Your task to perform on an android device: Go to network settings Image 0: 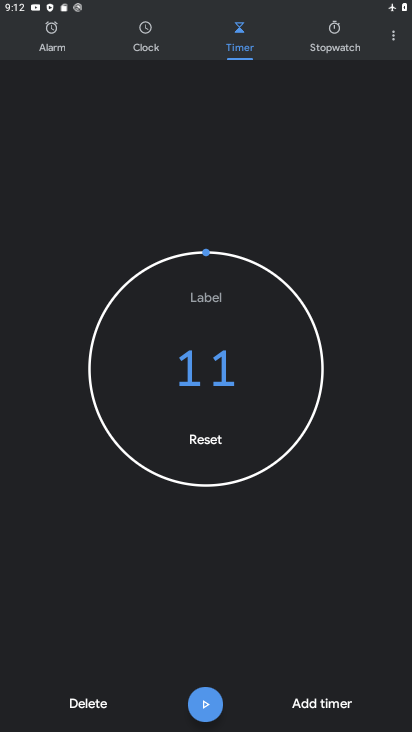
Step 0: press home button
Your task to perform on an android device: Go to network settings Image 1: 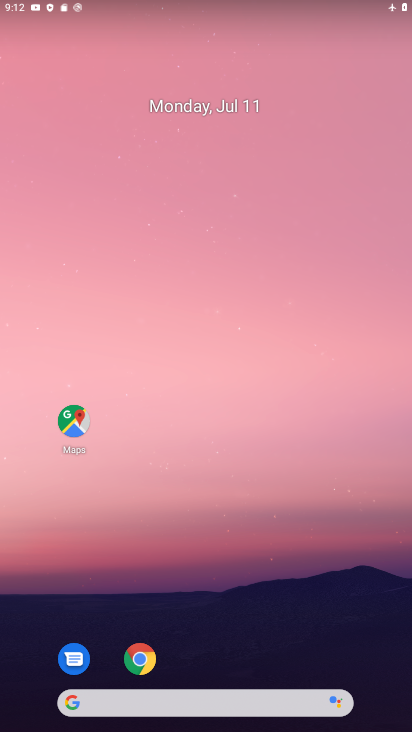
Step 1: drag from (204, 648) to (212, 189)
Your task to perform on an android device: Go to network settings Image 2: 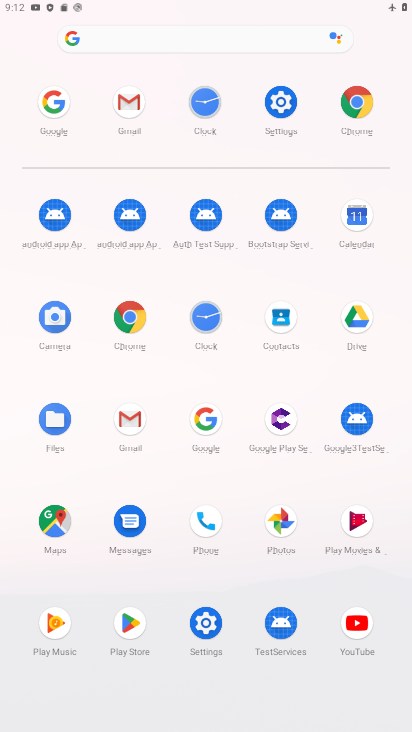
Step 2: click (270, 112)
Your task to perform on an android device: Go to network settings Image 3: 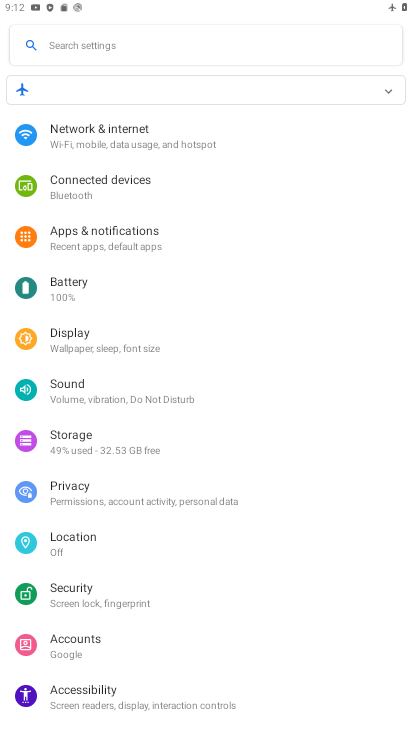
Step 3: click (170, 134)
Your task to perform on an android device: Go to network settings Image 4: 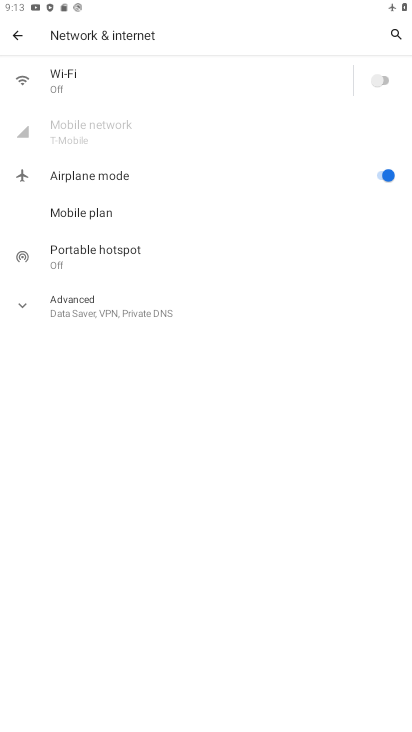
Step 4: task complete